Your task to perform on an android device: turn off data saver in the chrome app Image 0: 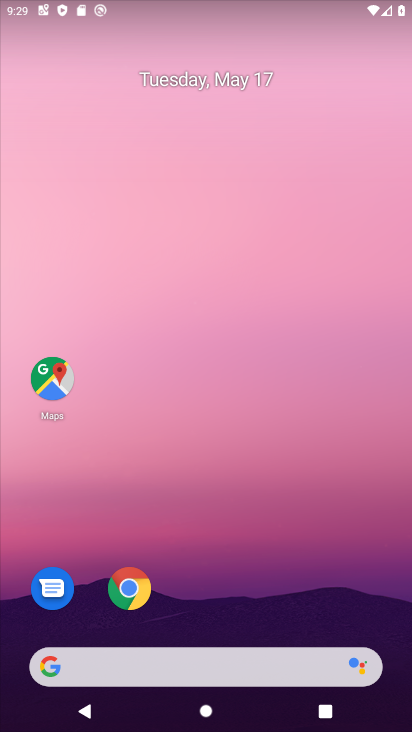
Step 0: click (129, 588)
Your task to perform on an android device: turn off data saver in the chrome app Image 1: 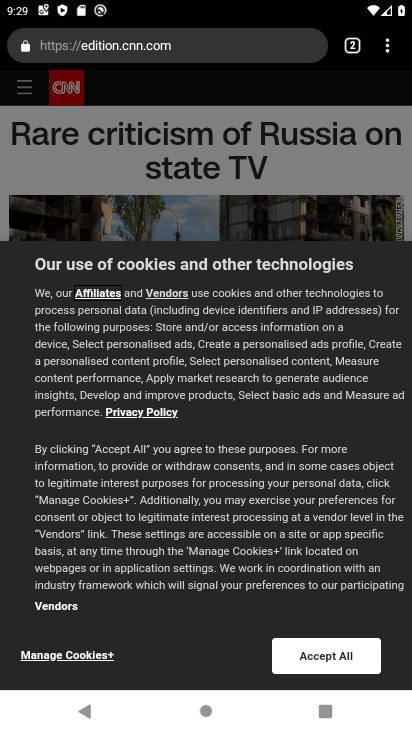
Step 1: click (394, 42)
Your task to perform on an android device: turn off data saver in the chrome app Image 2: 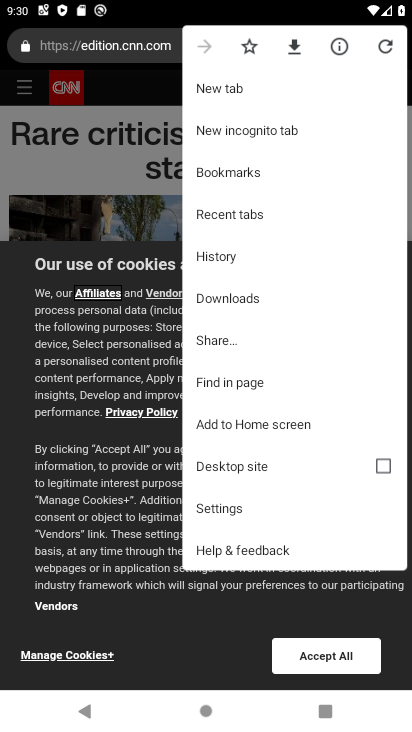
Step 2: click (228, 517)
Your task to perform on an android device: turn off data saver in the chrome app Image 3: 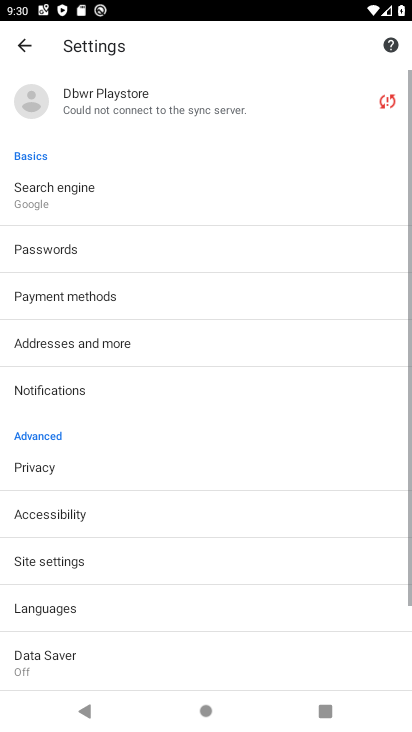
Step 3: drag from (213, 533) to (196, 255)
Your task to perform on an android device: turn off data saver in the chrome app Image 4: 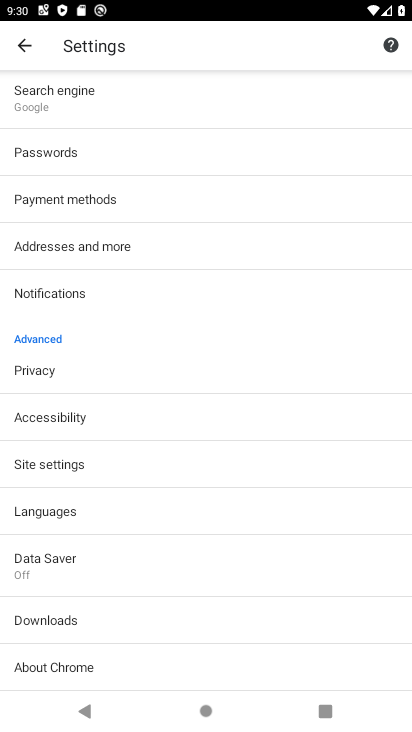
Step 4: click (57, 553)
Your task to perform on an android device: turn off data saver in the chrome app Image 5: 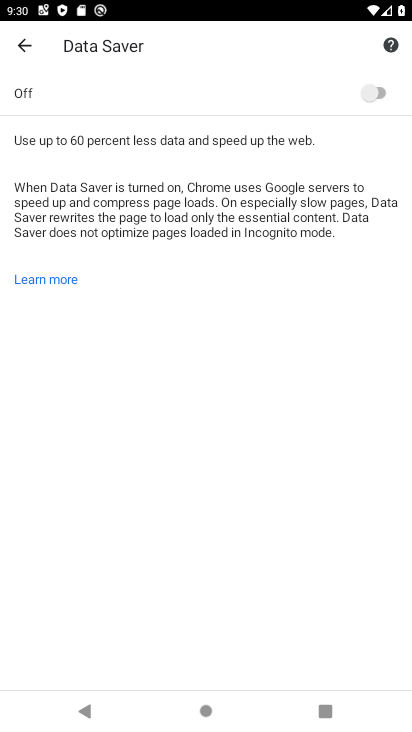
Step 5: task complete